Your task to perform on an android device: set the stopwatch Image 0: 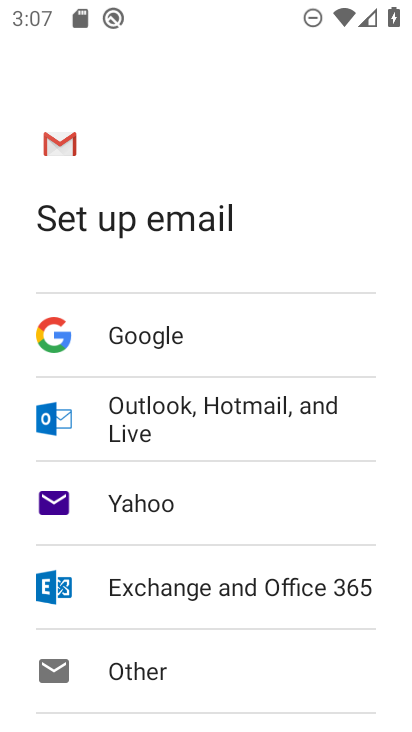
Step 0: press home button
Your task to perform on an android device: set the stopwatch Image 1: 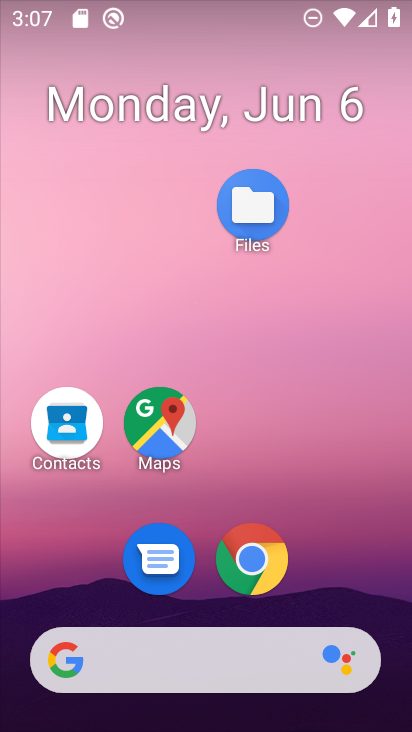
Step 1: drag from (186, 633) to (189, 74)
Your task to perform on an android device: set the stopwatch Image 2: 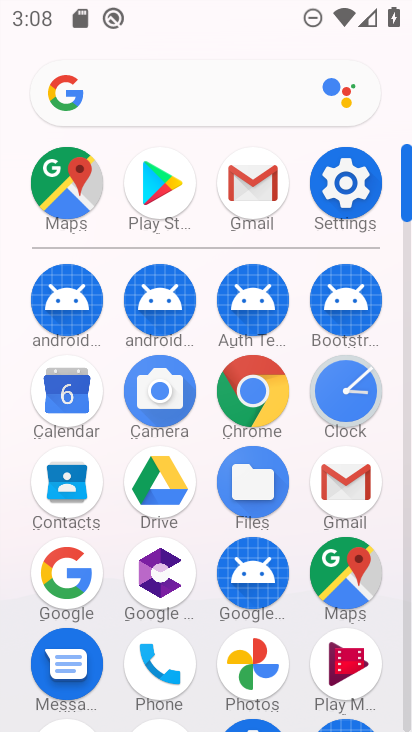
Step 2: click (353, 411)
Your task to perform on an android device: set the stopwatch Image 3: 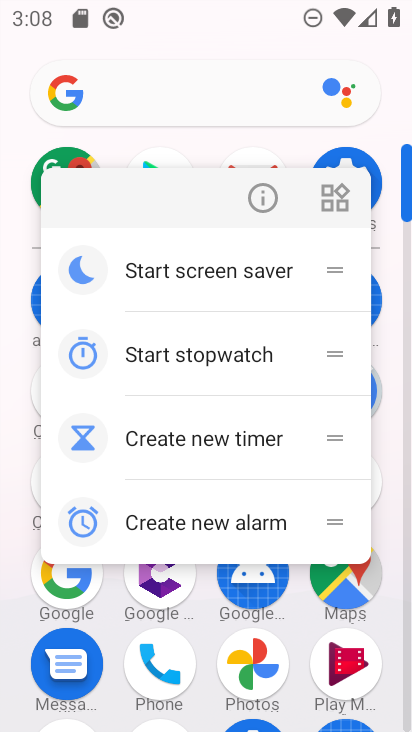
Step 3: click (379, 389)
Your task to perform on an android device: set the stopwatch Image 4: 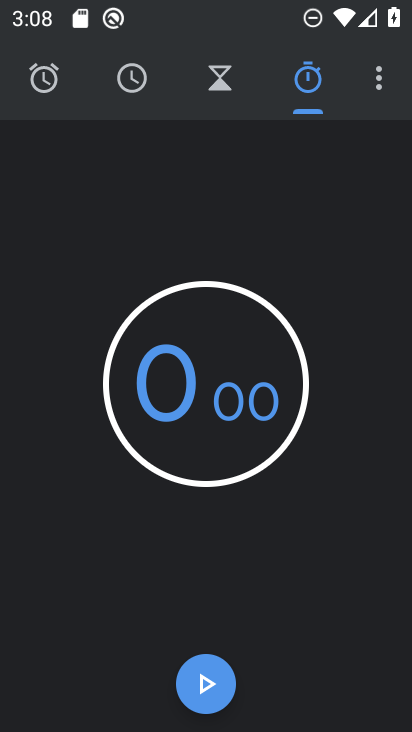
Step 4: click (384, 90)
Your task to perform on an android device: set the stopwatch Image 5: 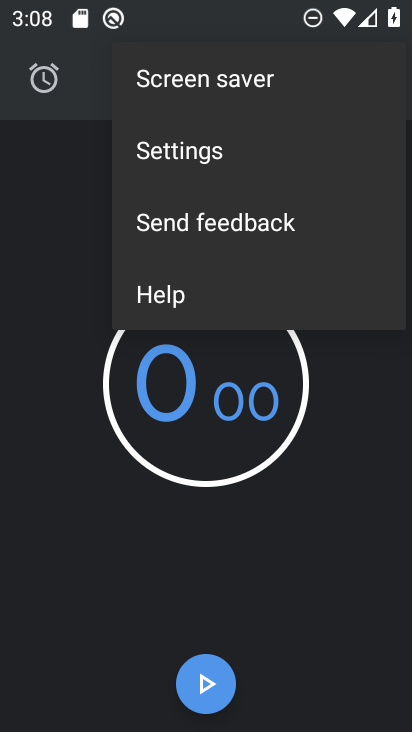
Step 5: click (48, 205)
Your task to perform on an android device: set the stopwatch Image 6: 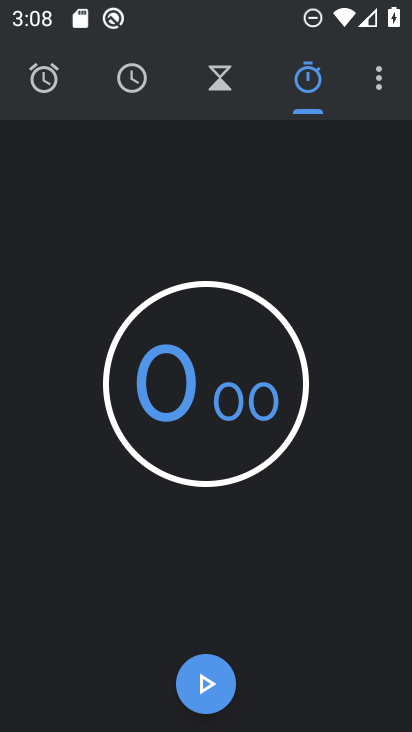
Step 6: click (203, 699)
Your task to perform on an android device: set the stopwatch Image 7: 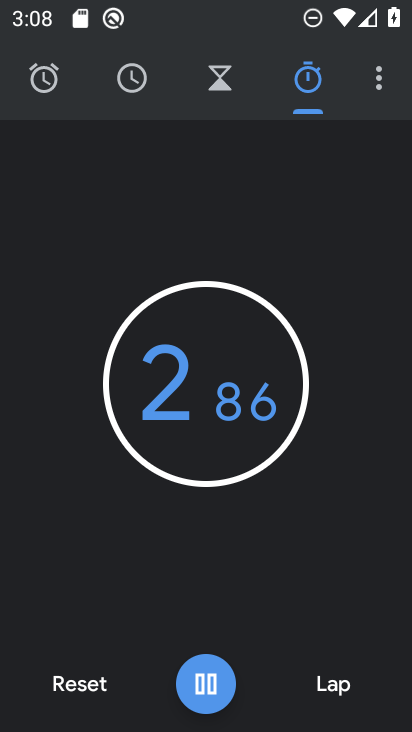
Step 7: task complete